Your task to perform on an android device: open a bookmark in the chrome app Image 0: 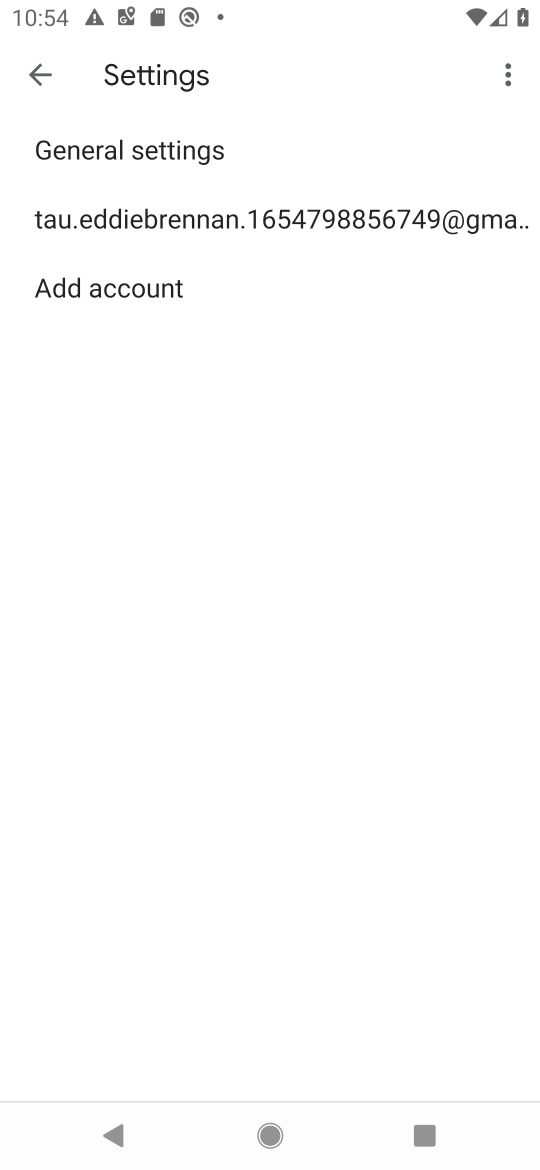
Step 0: press home button
Your task to perform on an android device: open a bookmark in the chrome app Image 1: 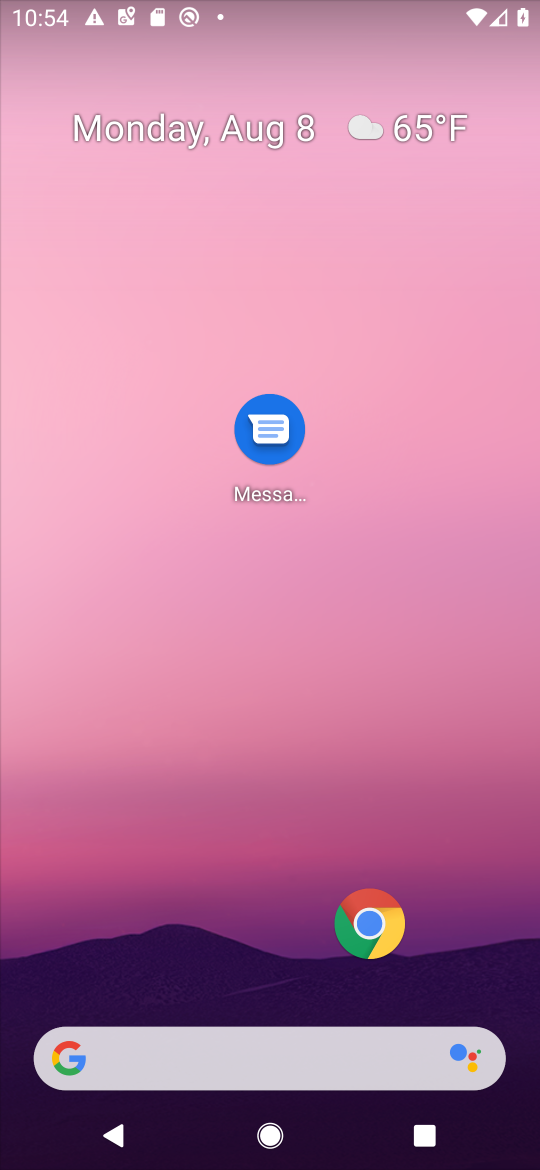
Step 1: drag from (39, 1127) to (172, 274)
Your task to perform on an android device: open a bookmark in the chrome app Image 2: 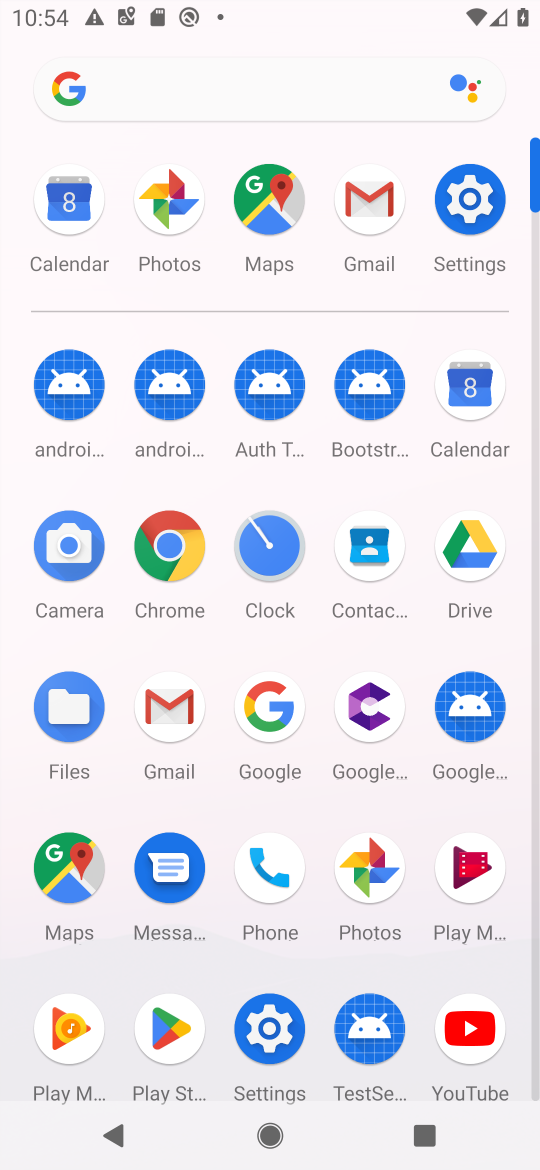
Step 2: click (181, 543)
Your task to perform on an android device: open a bookmark in the chrome app Image 3: 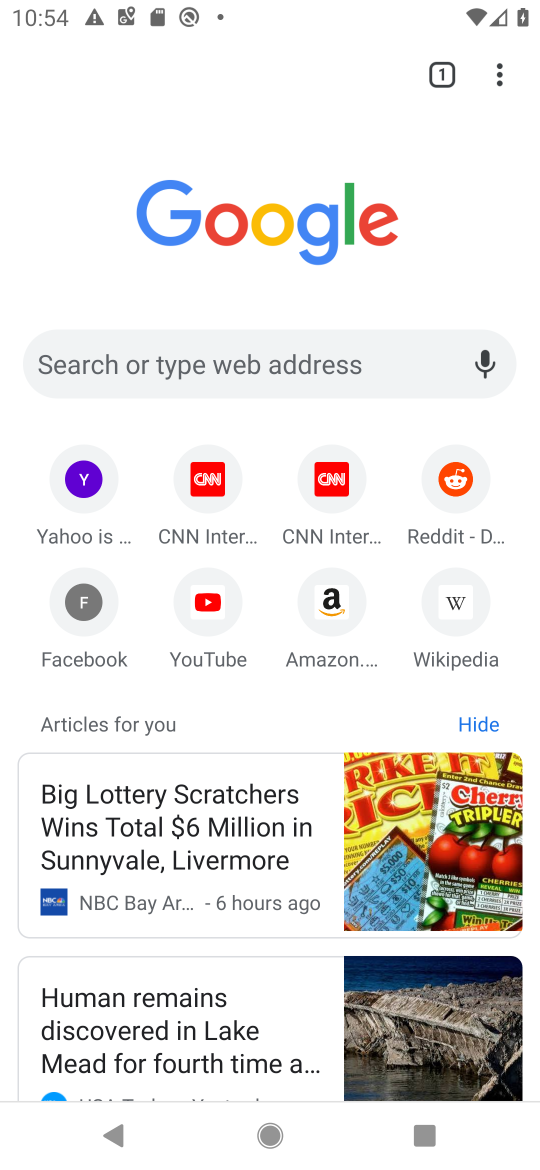
Step 3: click (513, 82)
Your task to perform on an android device: open a bookmark in the chrome app Image 4: 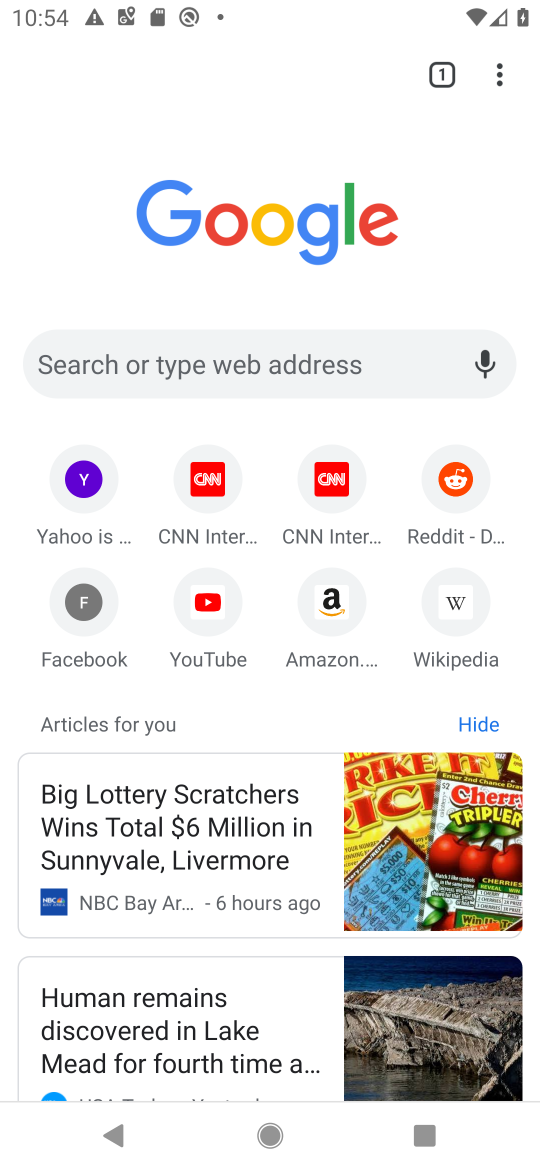
Step 4: click (513, 82)
Your task to perform on an android device: open a bookmark in the chrome app Image 5: 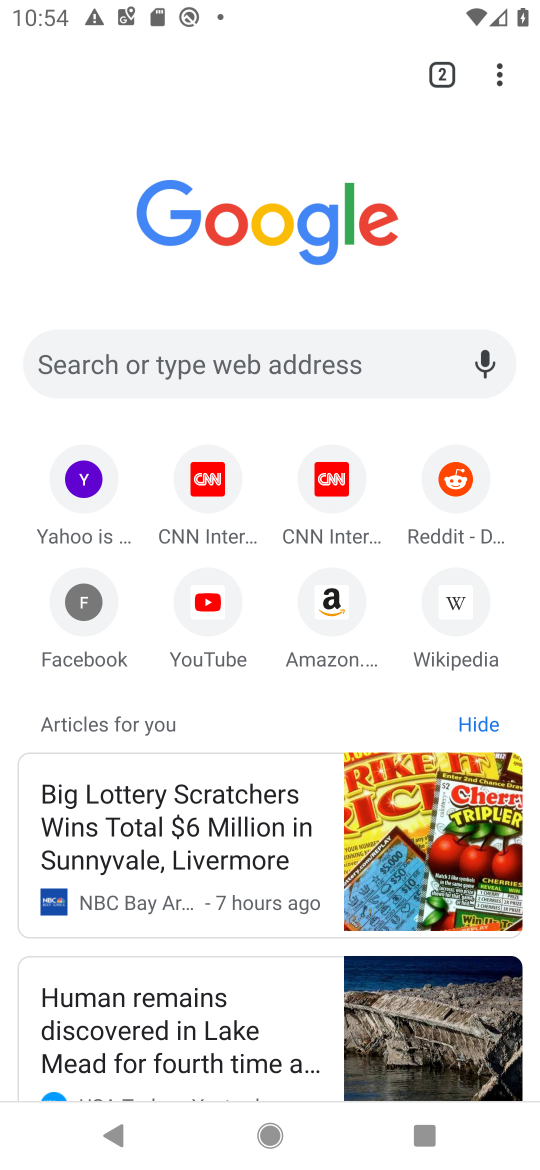
Step 5: click (502, 67)
Your task to perform on an android device: open a bookmark in the chrome app Image 6: 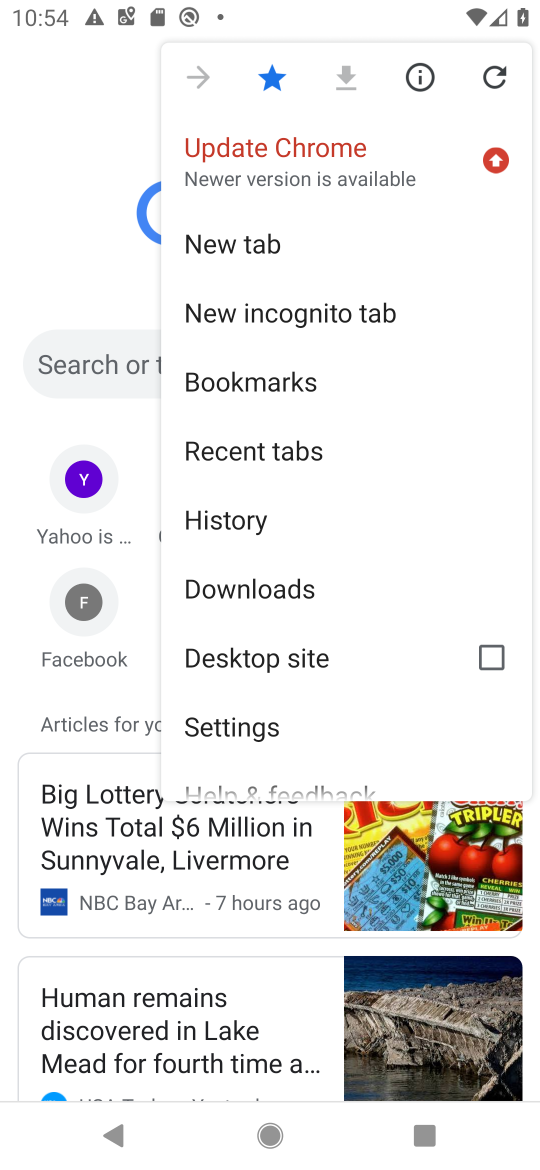
Step 6: click (235, 363)
Your task to perform on an android device: open a bookmark in the chrome app Image 7: 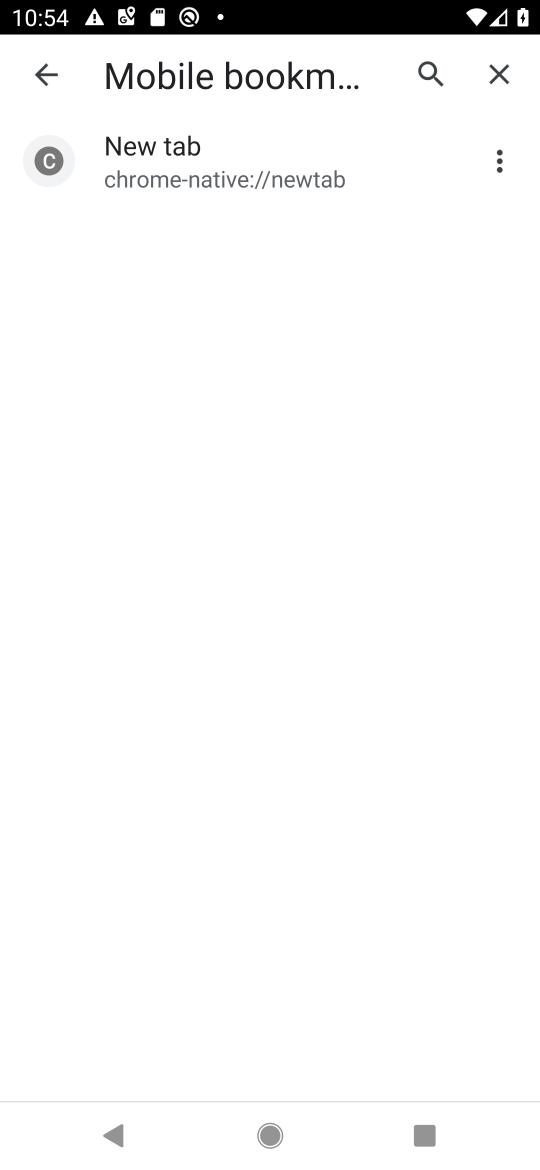
Step 7: task complete